Your task to perform on an android device: Open settings on Google Maps Image 0: 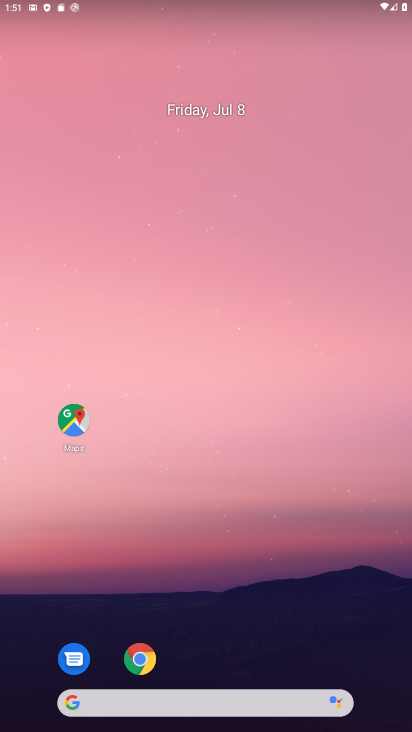
Step 0: press home button
Your task to perform on an android device: Open settings on Google Maps Image 1: 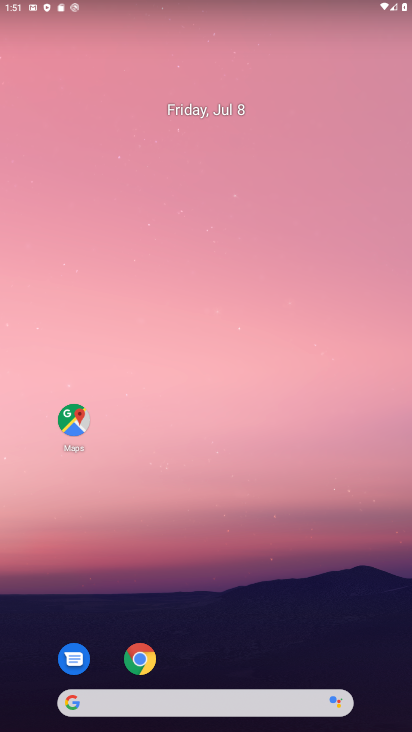
Step 1: drag from (316, 661) to (237, 122)
Your task to perform on an android device: Open settings on Google Maps Image 2: 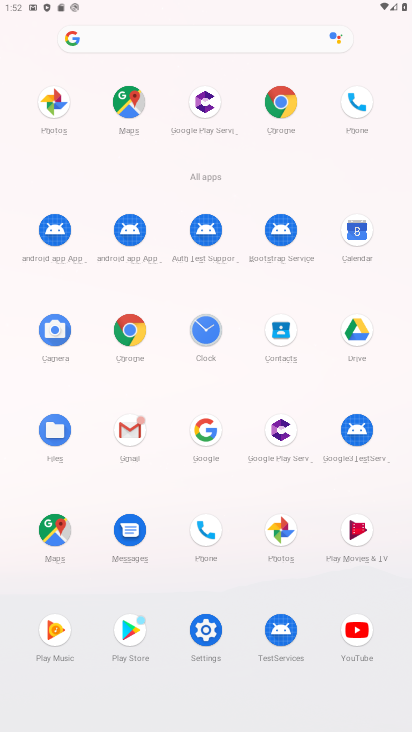
Step 2: click (58, 532)
Your task to perform on an android device: Open settings on Google Maps Image 3: 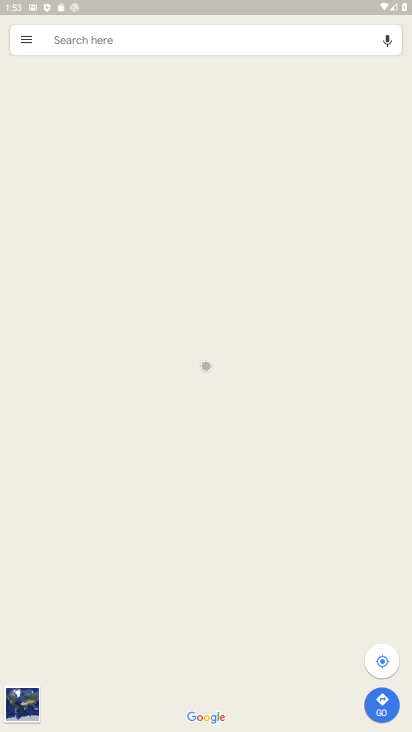
Step 3: click (13, 34)
Your task to perform on an android device: Open settings on Google Maps Image 4: 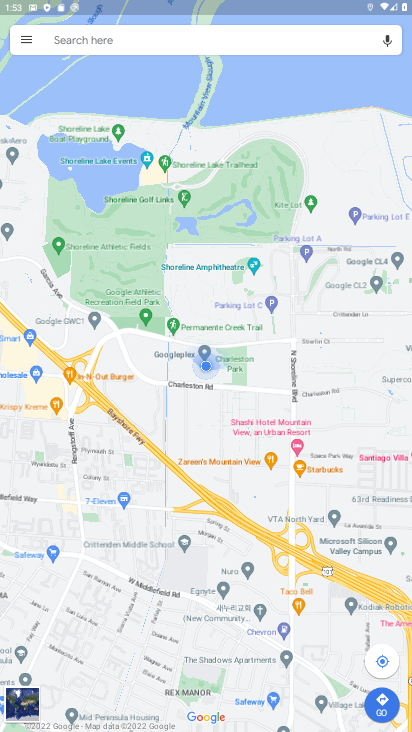
Step 4: click (21, 40)
Your task to perform on an android device: Open settings on Google Maps Image 5: 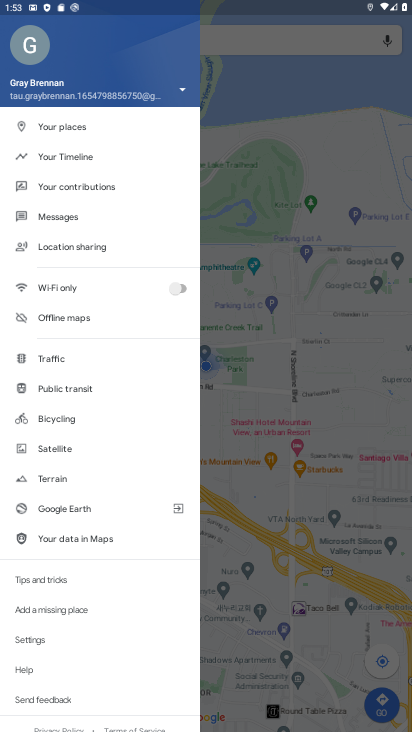
Step 5: click (33, 634)
Your task to perform on an android device: Open settings on Google Maps Image 6: 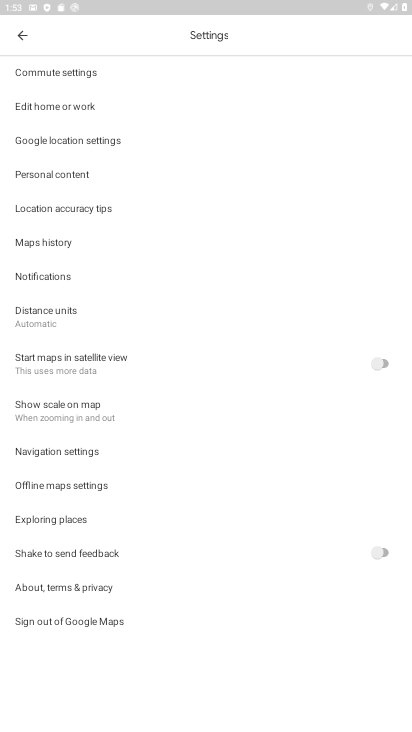
Step 6: task complete